Your task to perform on an android device: turn on improve location accuracy Image 0: 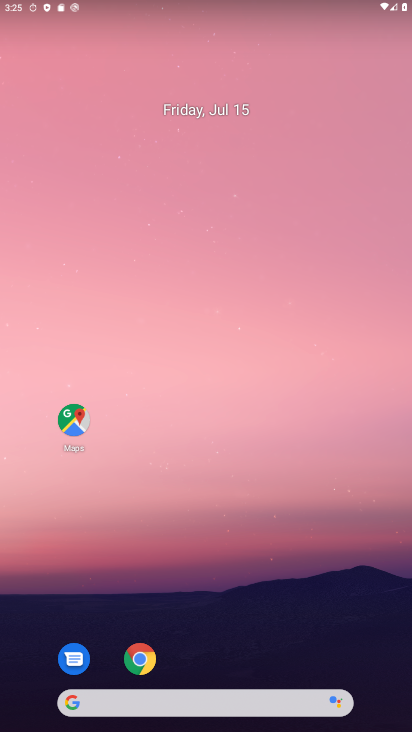
Step 0: drag from (286, 672) to (362, 2)
Your task to perform on an android device: turn on improve location accuracy Image 1: 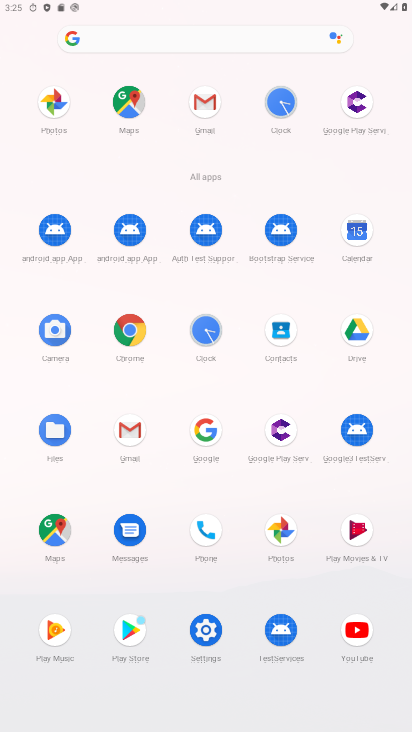
Step 1: click (200, 630)
Your task to perform on an android device: turn on improve location accuracy Image 2: 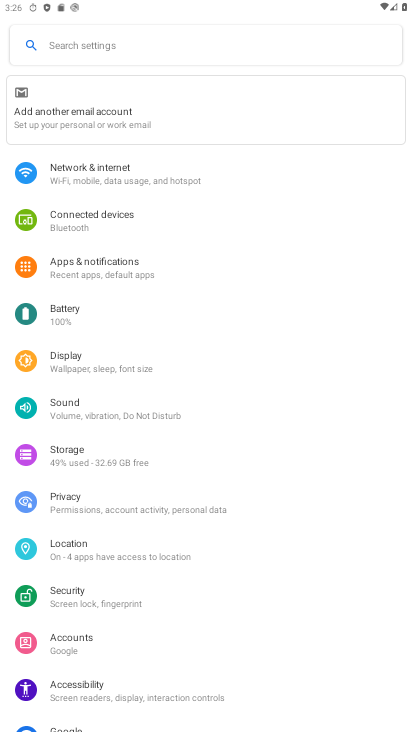
Step 2: click (104, 554)
Your task to perform on an android device: turn on improve location accuracy Image 3: 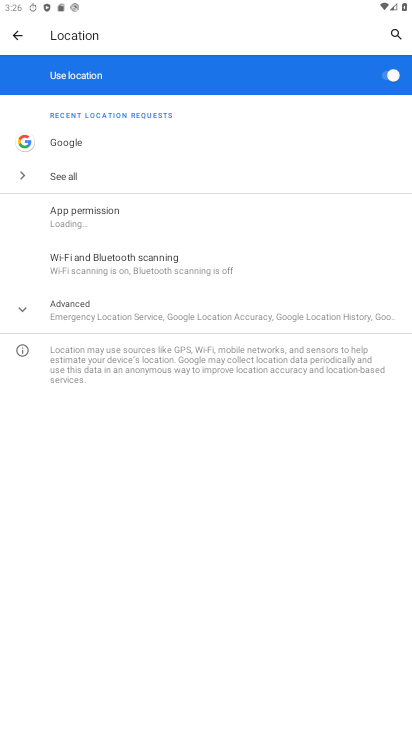
Step 3: click (97, 312)
Your task to perform on an android device: turn on improve location accuracy Image 4: 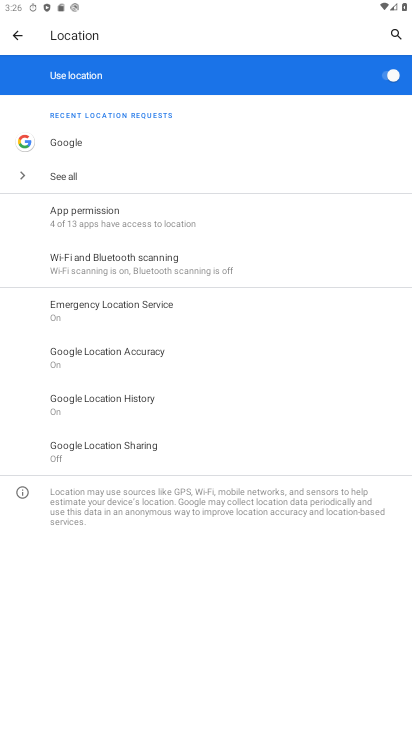
Step 4: click (110, 353)
Your task to perform on an android device: turn on improve location accuracy Image 5: 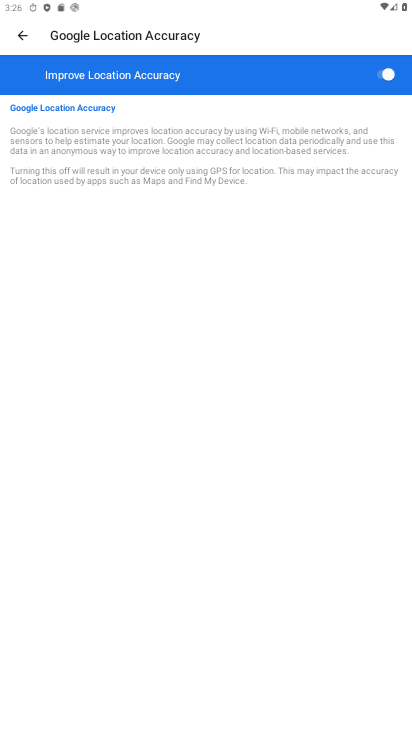
Step 5: task complete